Your task to perform on an android device: turn off javascript in the chrome app Image 0: 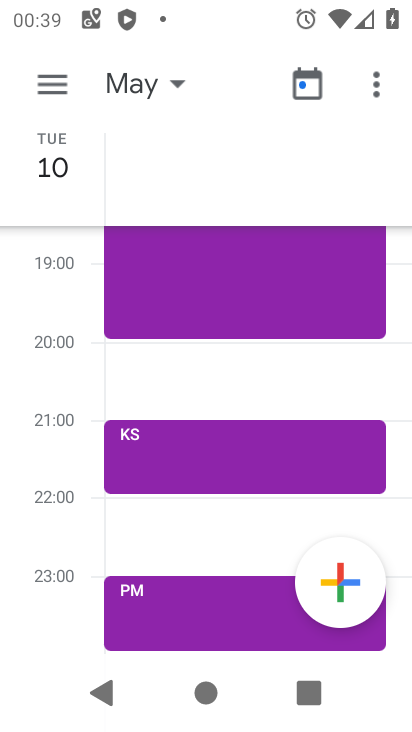
Step 0: press home button
Your task to perform on an android device: turn off javascript in the chrome app Image 1: 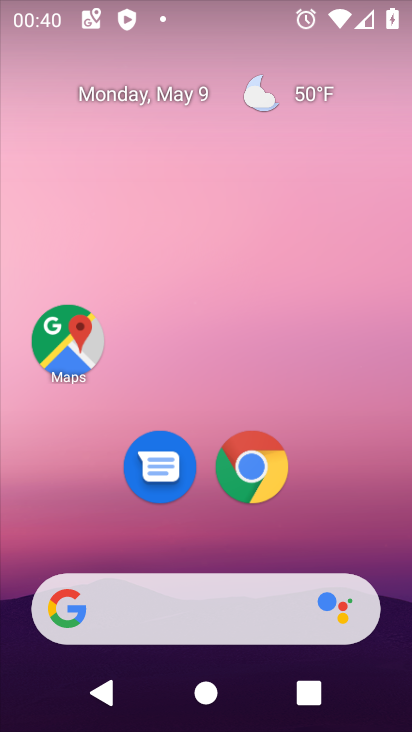
Step 1: click (248, 461)
Your task to perform on an android device: turn off javascript in the chrome app Image 2: 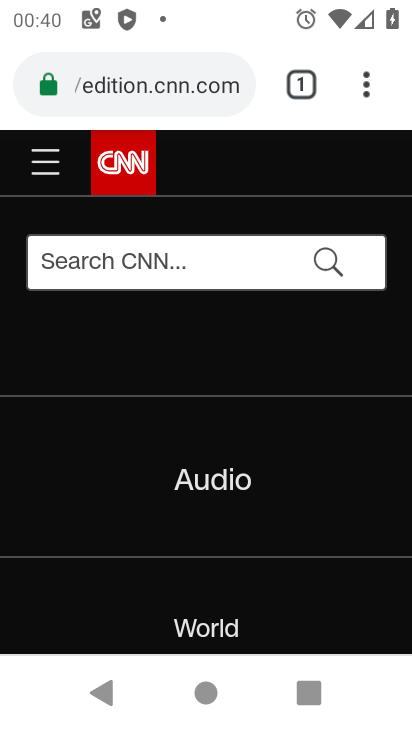
Step 2: click (366, 86)
Your task to perform on an android device: turn off javascript in the chrome app Image 3: 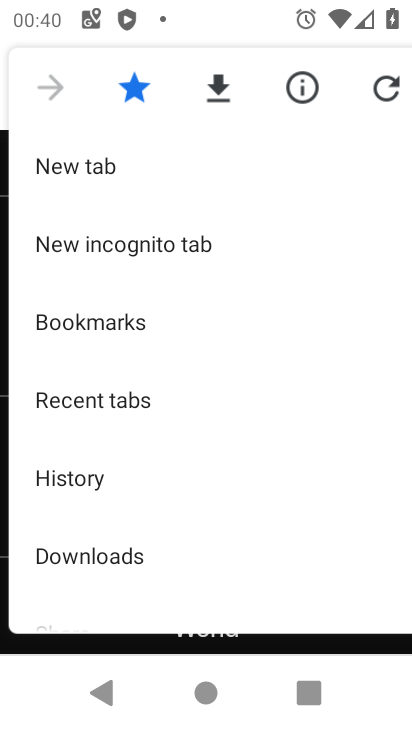
Step 3: drag from (193, 581) to (266, 36)
Your task to perform on an android device: turn off javascript in the chrome app Image 4: 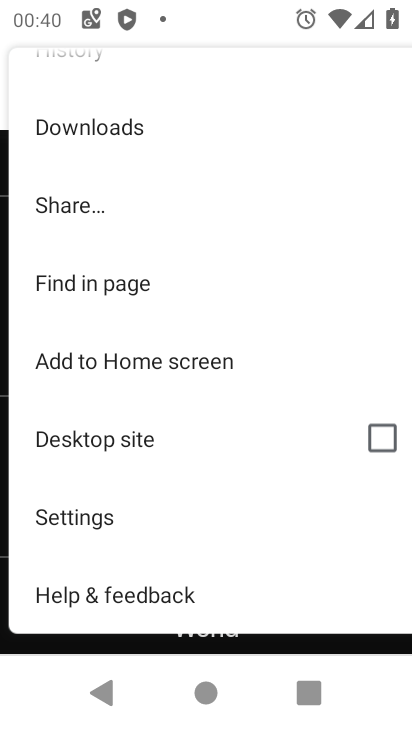
Step 4: click (121, 512)
Your task to perform on an android device: turn off javascript in the chrome app Image 5: 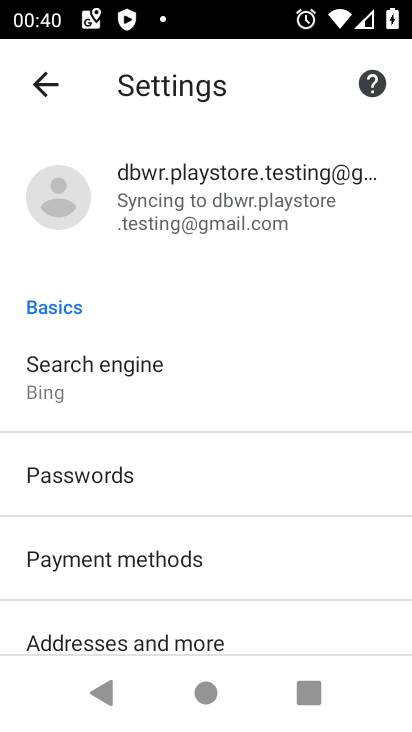
Step 5: drag from (234, 621) to (251, 63)
Your task to perform on an android device: turn off javascript in the chrome app Image 6: 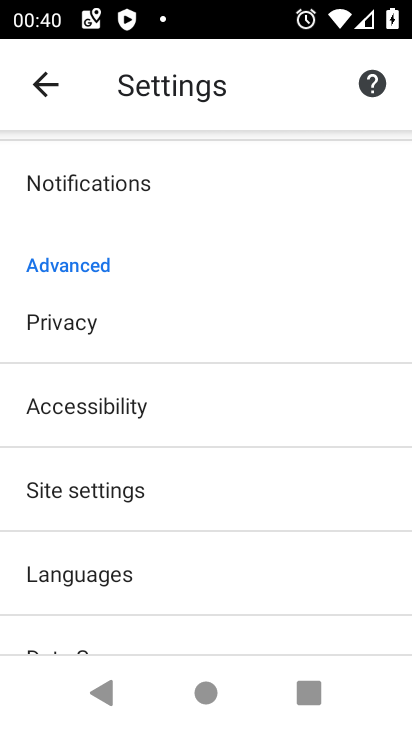
Step 6: click (162, 490)
Your task to perform on an android device: turn off javascript in the chrome app Image 7: 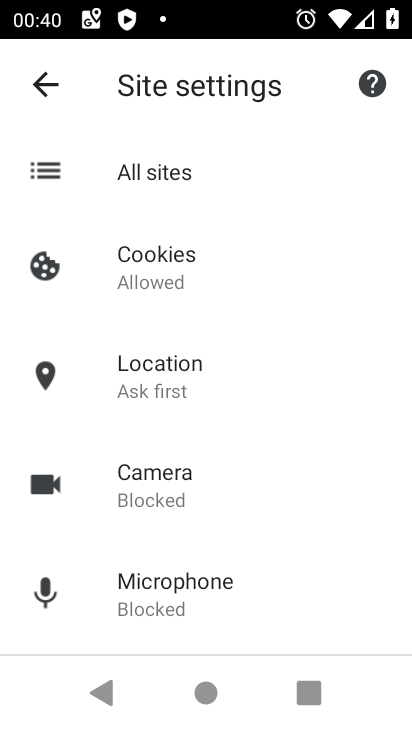
Step 7: drag from (204, 613) to (224, 127)
Your task to perform on an android device: turn off javascript in the chrome app Image 8: 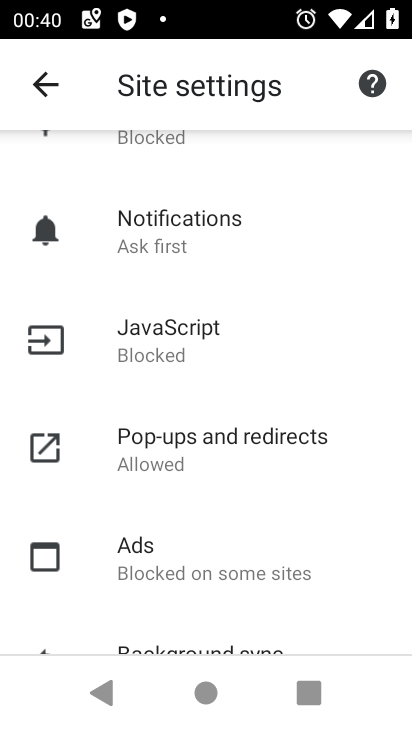
Step 8: click (193, 348)
Your task to perform on an android device: turn off javascript in the chrome app Image 9: 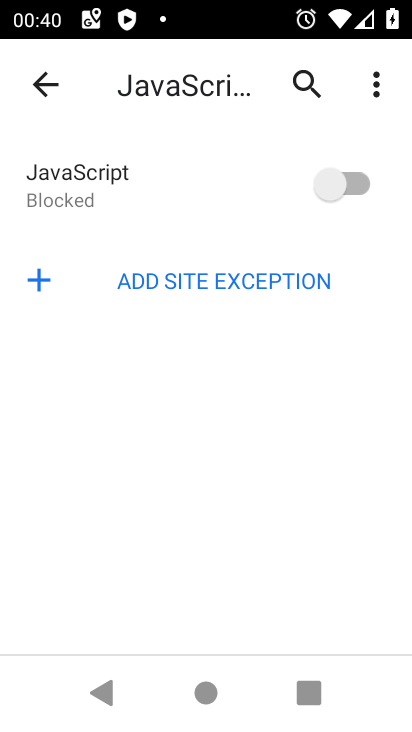
Step 9: task complete